Your task to perform on an android device: turn on location history Image 0: 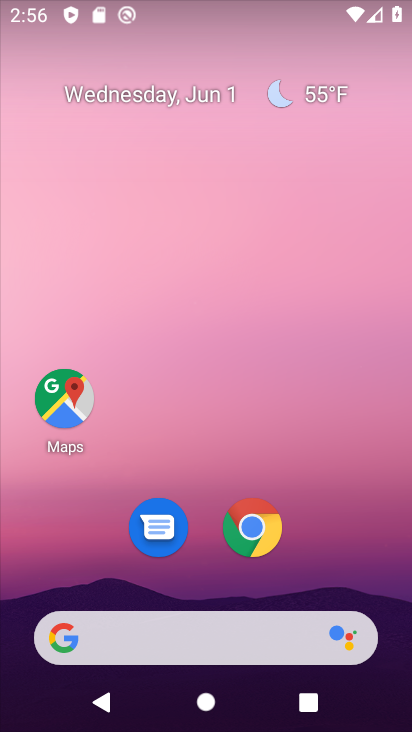
Step 0: press home button
Your task to perform on an android device: turn on location history Image 1: 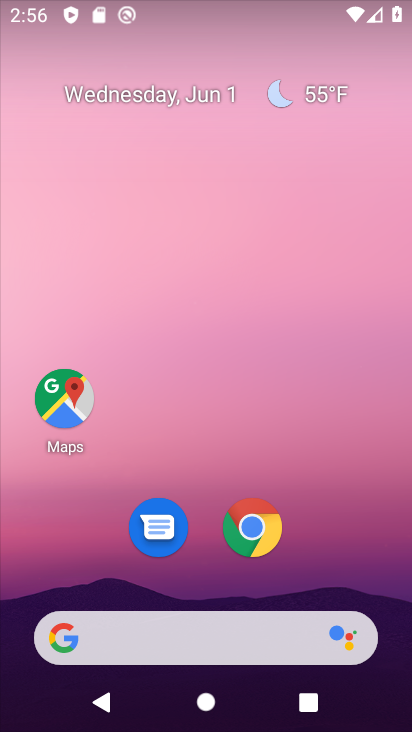
Step 1: drag from (405, 694) to (302, 166)
Your task to perform on an android device: turn on location history Image 2: 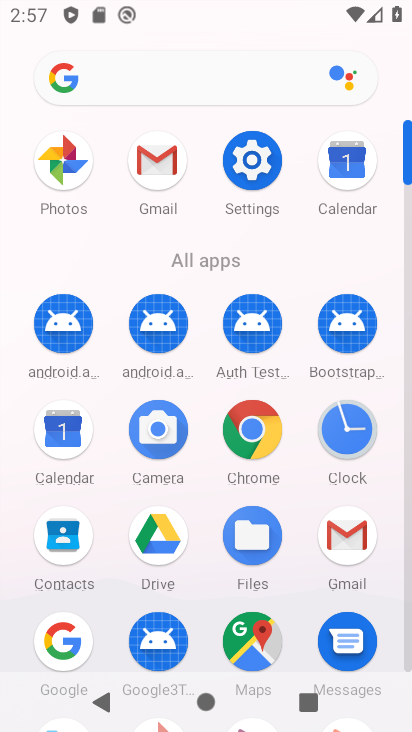
Step 2: drag from (302, 490) to (289, 294)
Your task to perform on an android device: turn on location history Image 3: 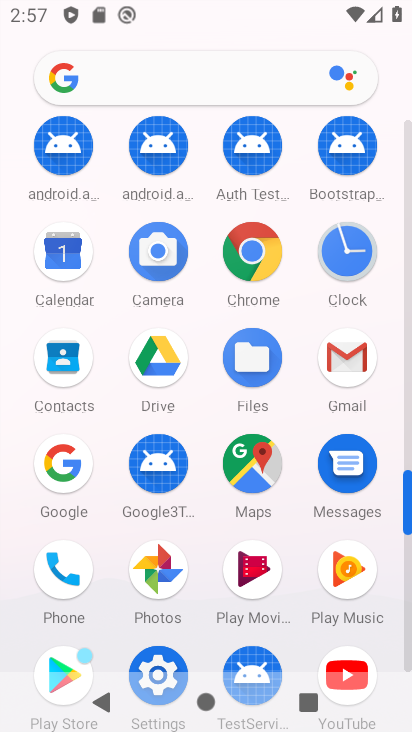
Step 3: drag from (193, 501) to (207, 348)
Your task to perform on an android device: turn on location history Image 4: 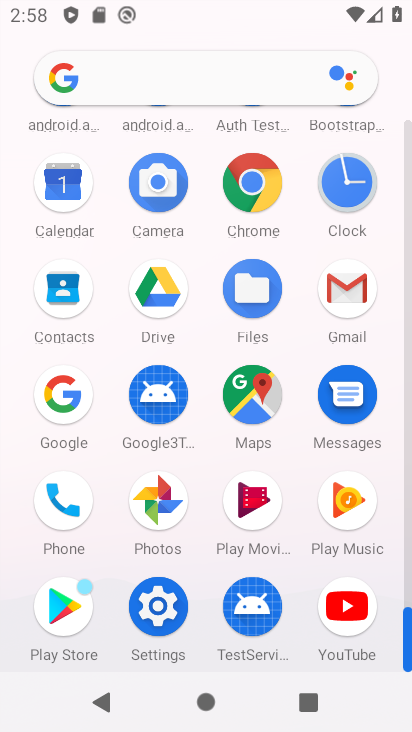
Step 4: click (257, 400)
Your task to perform on an android device: turn on location history Image 5: 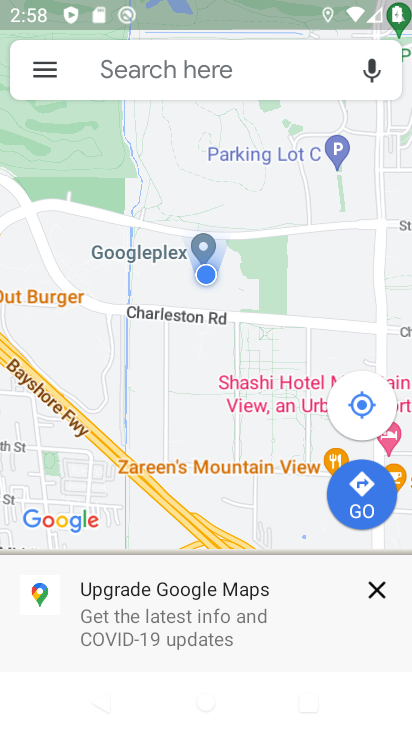
Step 5: click (51, 75)
Your task to perform on an android device: turn on location history Image 6: 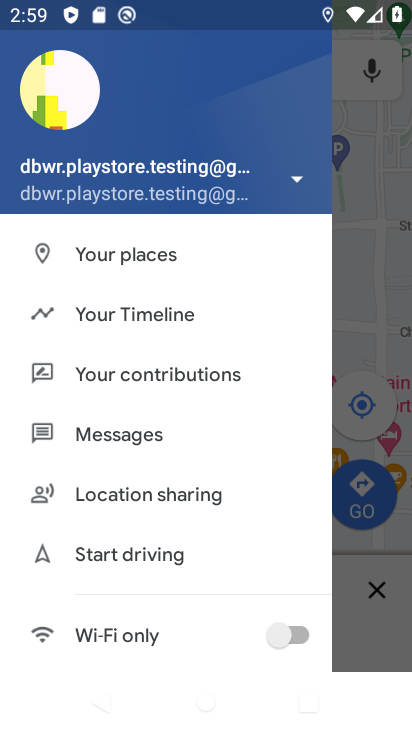
Step 6: click (101, 330)
Your task to perform on an android device: turn on location history Image 7: 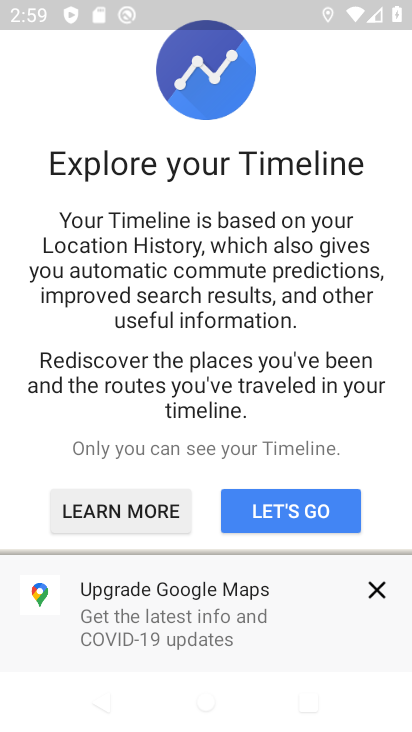
Step 7: click (260, 518)
Your task to perform on an android device: turn on location history Image 8: 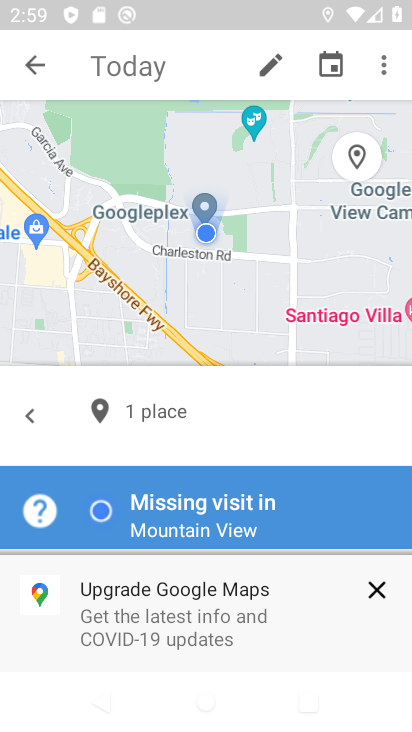
Step 8: drag from (310, 450) to (243, 261)
Your task to perform on an android device: turn on location history Image 9: 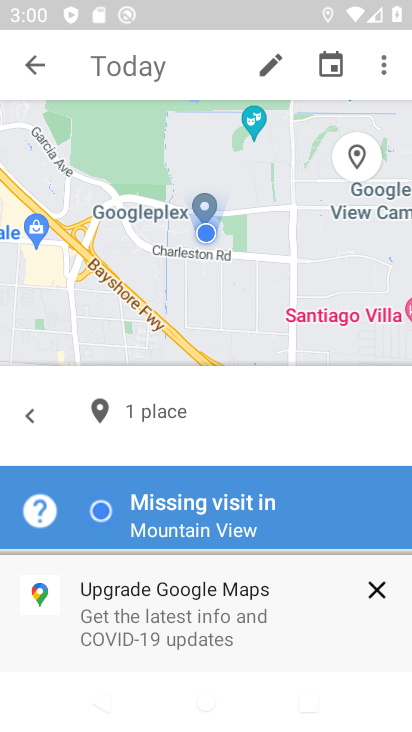
Step 9: click (382, 71)
Your task to perform on an android device: turn on location history Image 10: 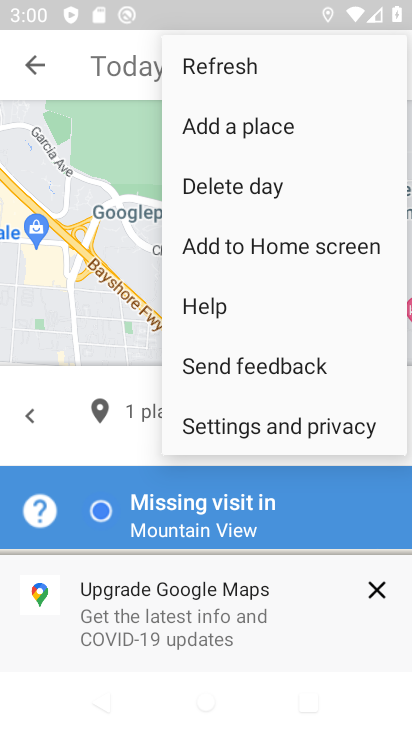
Step 10: click (255, 419)
Your task to perform on an android device: turn on location history Image 11: 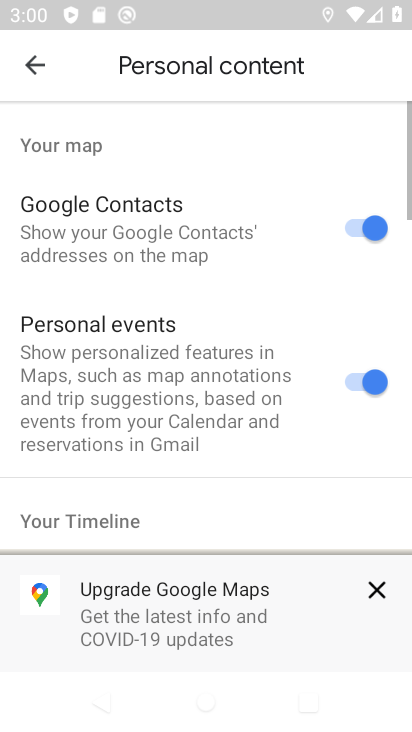
Step 11: drag from (213, 529) to (285, 324)
Your task to perform on an android device: turn on location history Image 12: 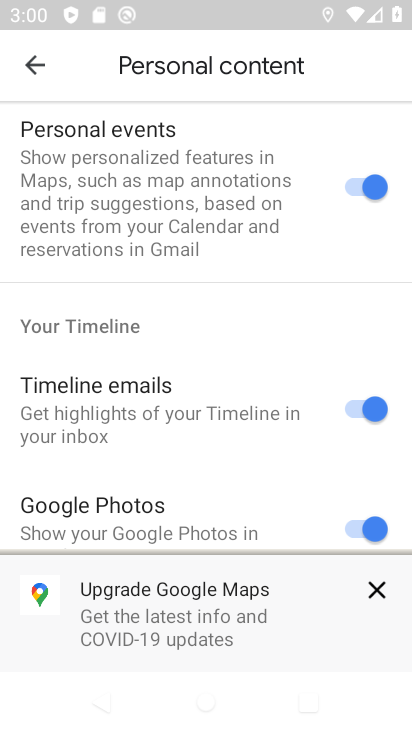
Step 12: click (366, 594)
Your task to perform on an android device: turn on location history Image 13: 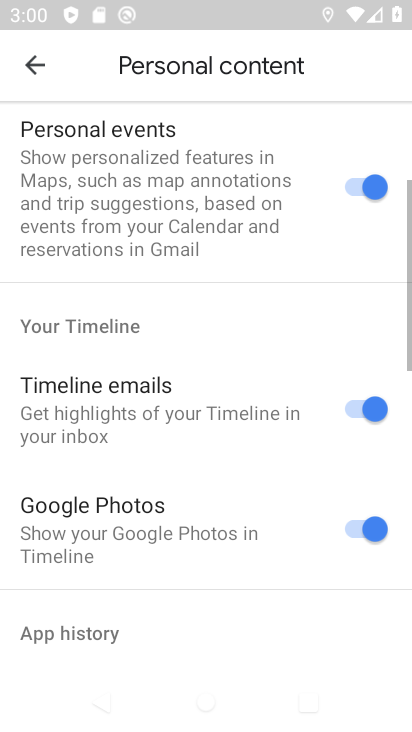
Step 13: drag from (242, 558) to (141, 154)
Your task to perform on an android device: turn on location history Image 14: 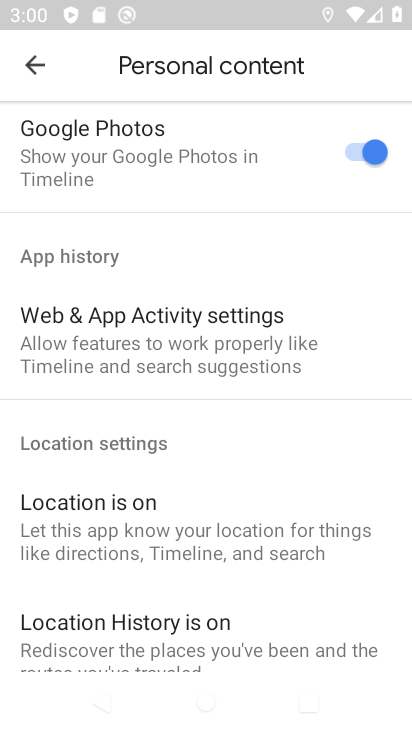
Step 14: drag from (232, 547) to (235, 342)
Your task to perform on an android device: turn on location history Image 15: 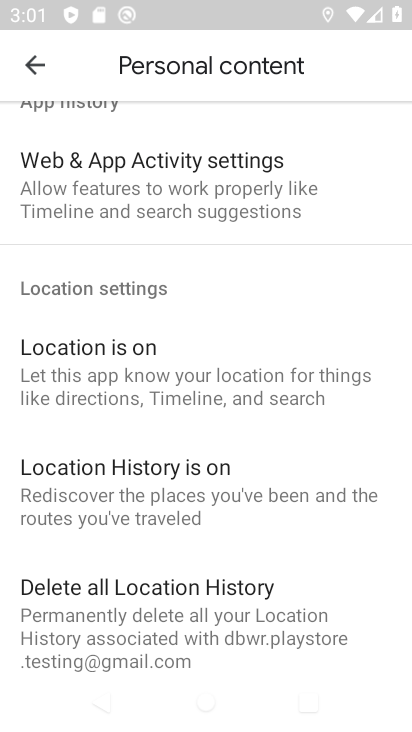
Step 15: click (194, 597)
Your task to perform on an android device: turn on location history Image 16: 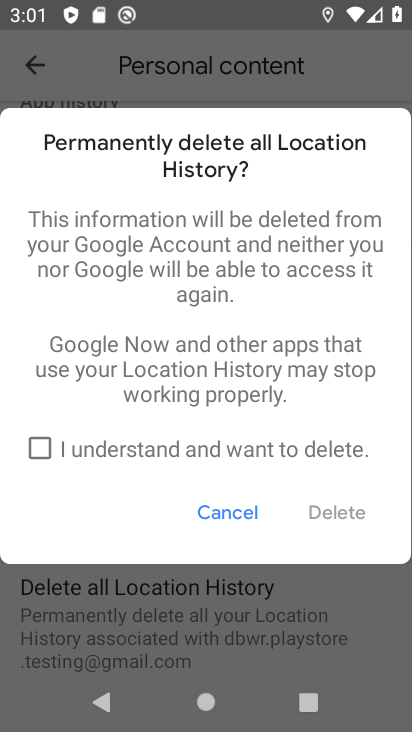
Step 16: click (224, 515)
Your task to perform on an android device: turn on location history Image 17: 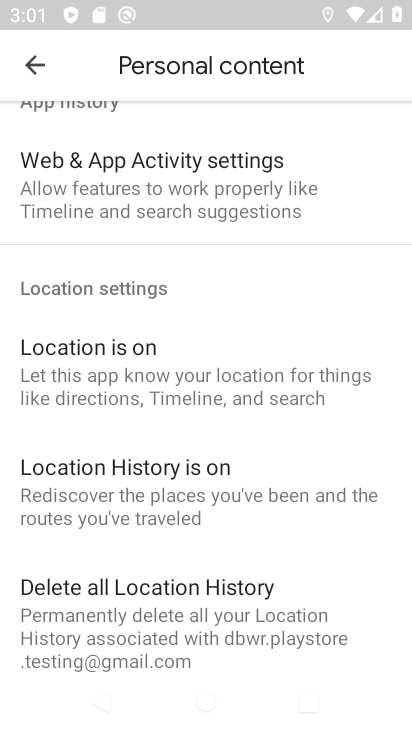
Step 17: click (159, 501)
Your task to perform on an android device: turn on location history Image 18: 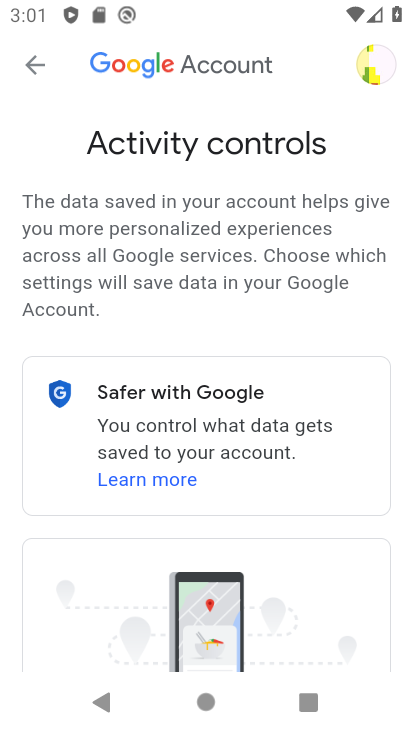
Step 18: task complete